Your task to perform on an android device: Open display settings Image 0: 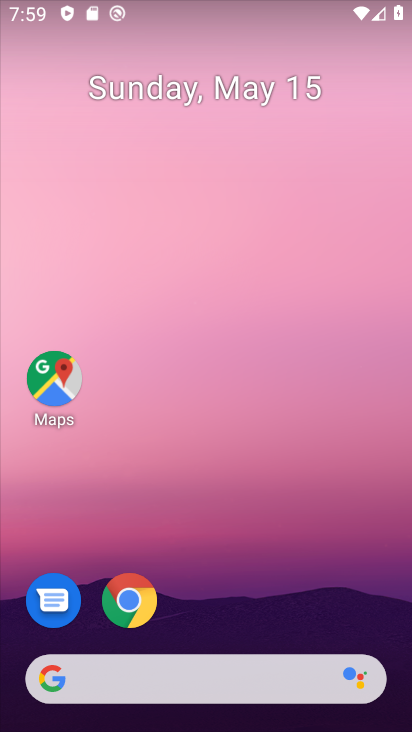
Step 0: drag from (196, 568) to (70, 96)
Your task to perform on an android device: Open display settings Image 1: 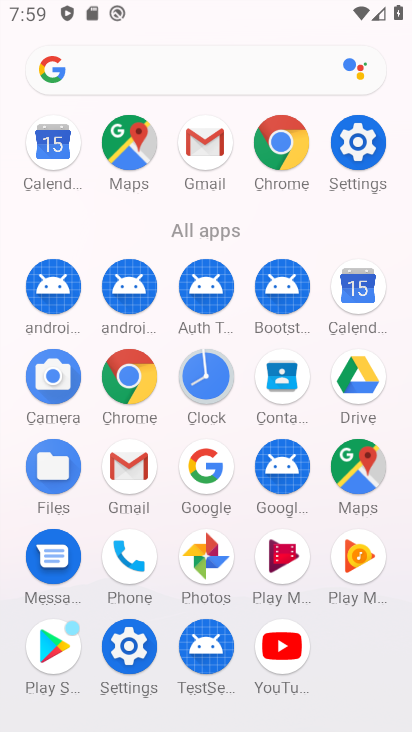
Step 1: click (369, 140)
Your task to perform on an android device: Open display settings Image 2: 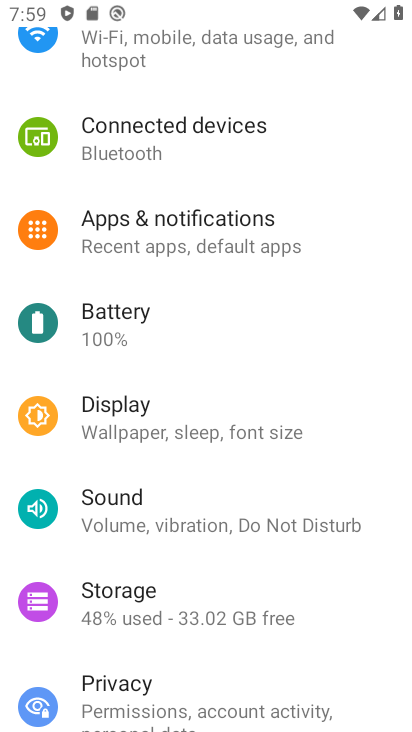
Step 2: click (124, 423)
Your task to perform on an android device: Open display settings Image 3: 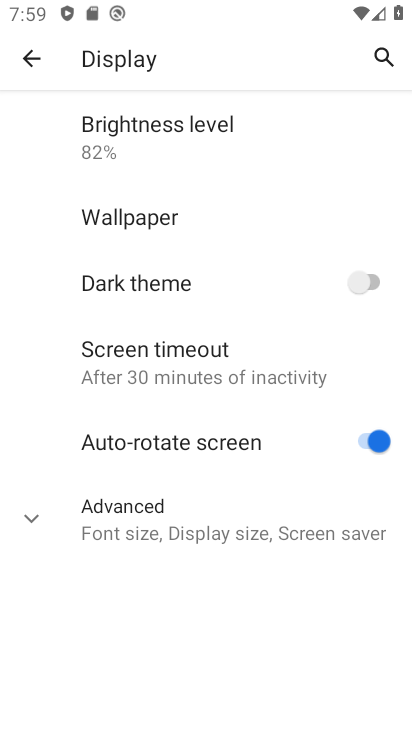
Step 3: click (114, 524)
Your task to perform on an android device: Open display settings Image 4: 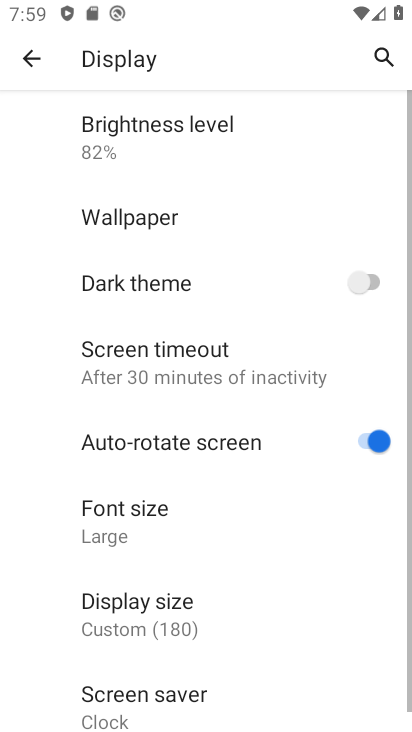
Step 4: click (113, 532)
Your task to perform on an android device: Open display settings Image 5: 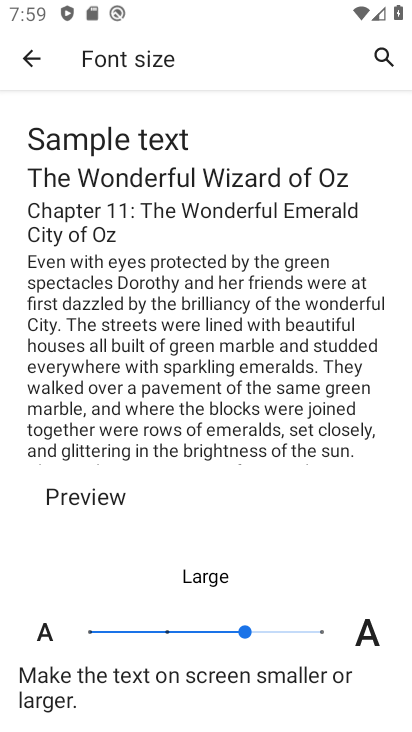
Step 5: task complete